Your task to perform on an android device: read, delete, or share a saved page in the chrome app Image 0: 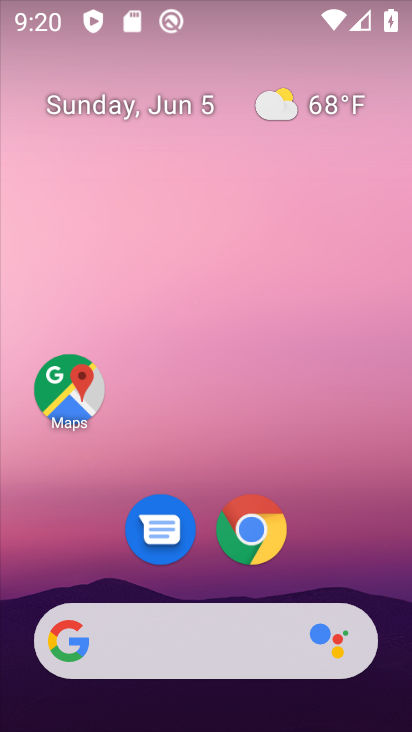
Step 0: click (253, 535)
Your task to perform on an android device: read, delete, or share a saved page in the chrome app Image 1: 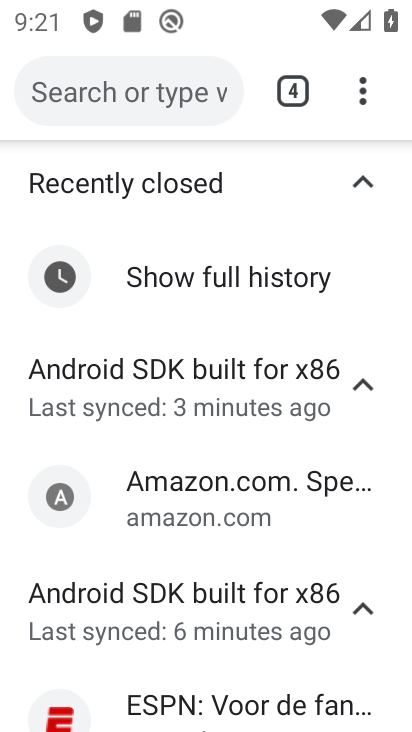
Step 1: click (361, 101)
Your task to perform on an android device: read, delete, or share a saved page in the chrome app Image 2: 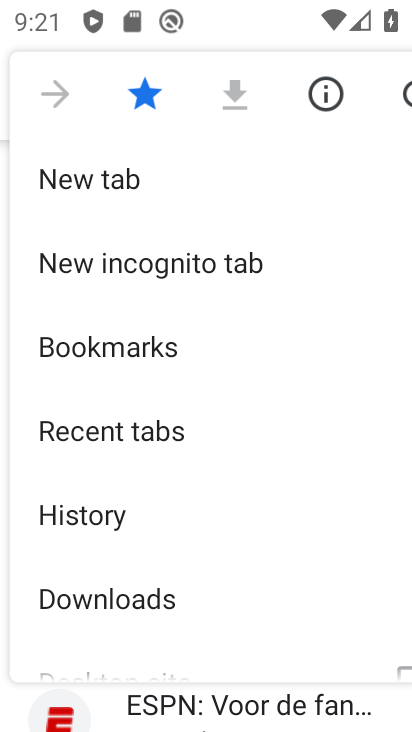
Step 2: click (143, 587)
Your task to perform on an android device: read, delete, or share a saved page in the chrome app Image 3: 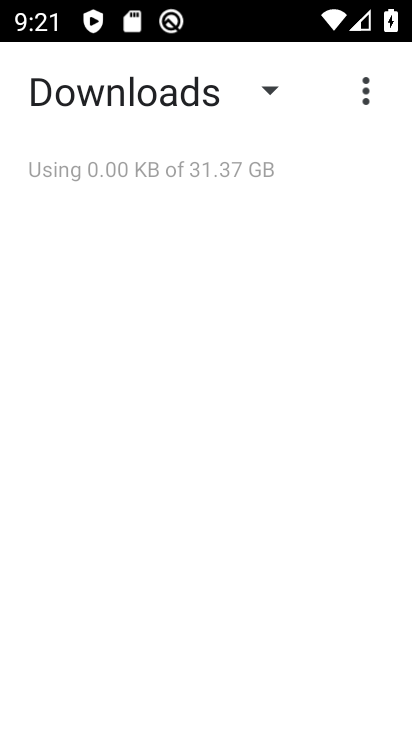
Step 3: task complete